Your task to perform on an android device: Go to calendar. Show me events next week Image 0: 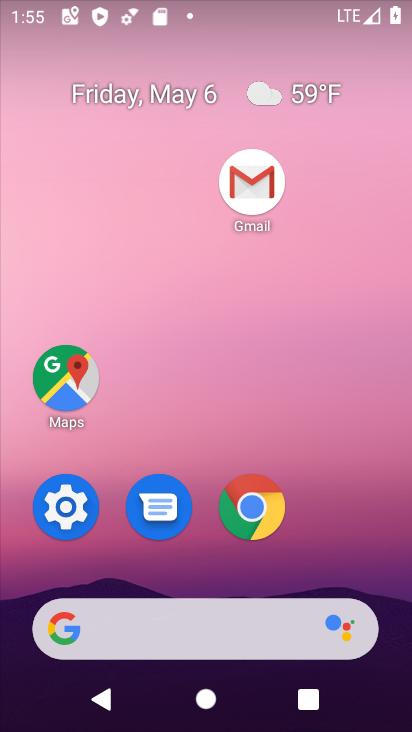
Step 0: drag from (342, 510) to (292, 70)
Your task to perform on an android device: Go to calendar. Show me events next week Image 1: 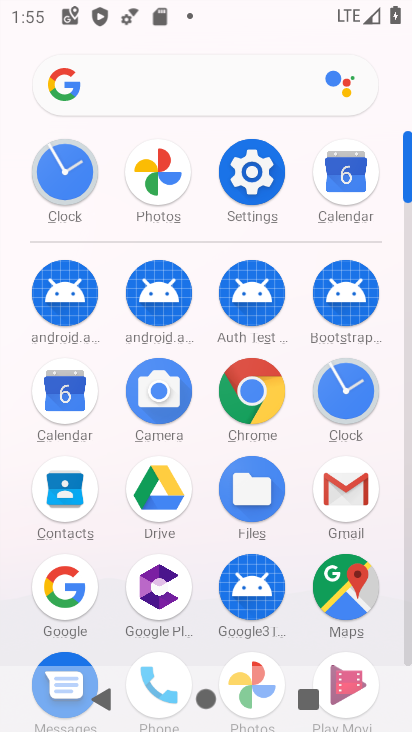
Step 1: click (60, 400)
Your task to perform on an android device: Go to calendar. Show me events next week Image 2: 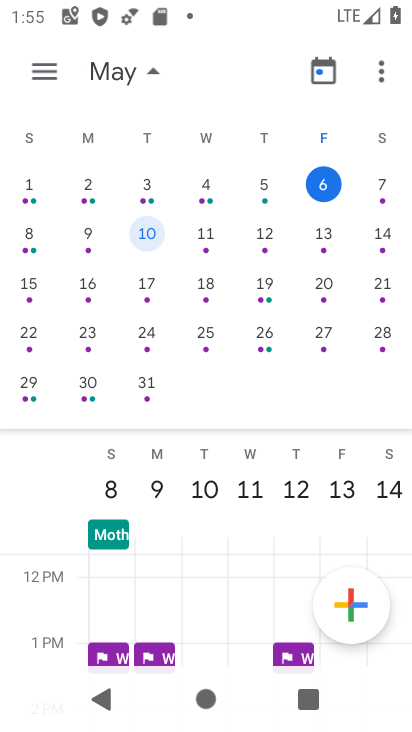
Step 2: task complete